Your task to perform on an android device: find snoozed emails in the gmail app Image 0: 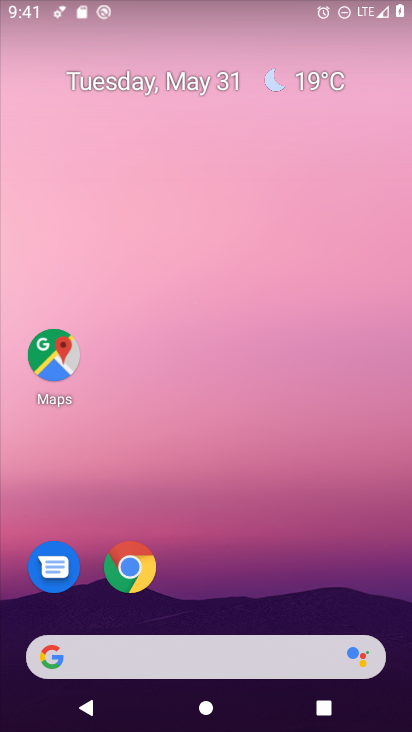
Step 0: drag from (196, 611) to (249, 76)
Your task to perform on an android device: find snoozed emails in the gmail app Image 1: 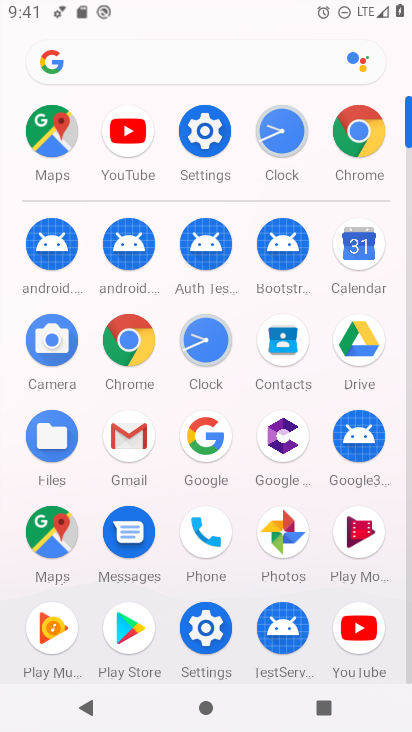
Step 1: click (137, 437)
Your task to perform on an android device: find snoozed emails in the gmail app Image 2: 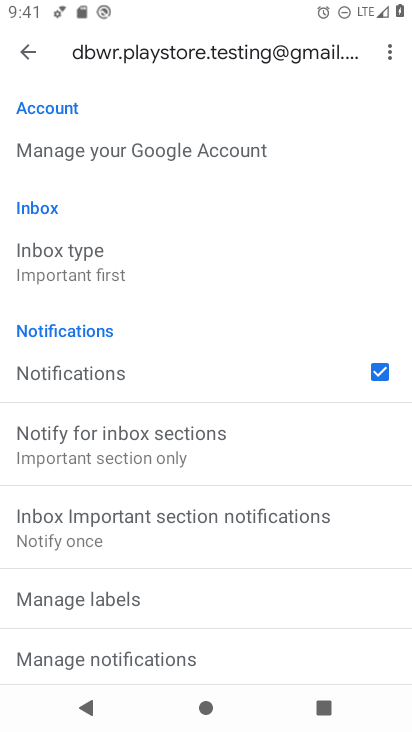
Step 2: click (27, 54)
Your task to perform on an android device: find snoozed emails in the gmail app Image 3: 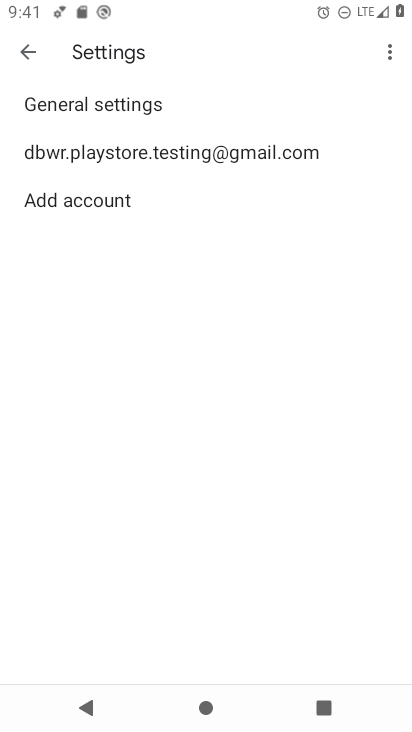
Step 3: click (23, 54)
Your task to perform on an android device: find snoozed emails in the gmail app Image 4: 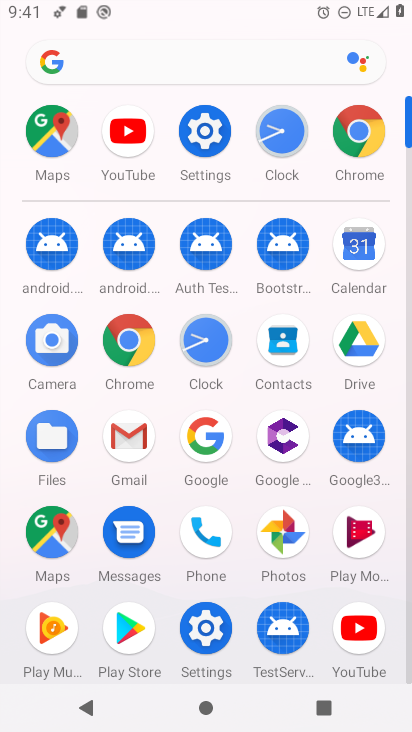
Step 4: click (134, 441)
Your task to perform on an android device: find snoozed emails in the gmail app Image 5: 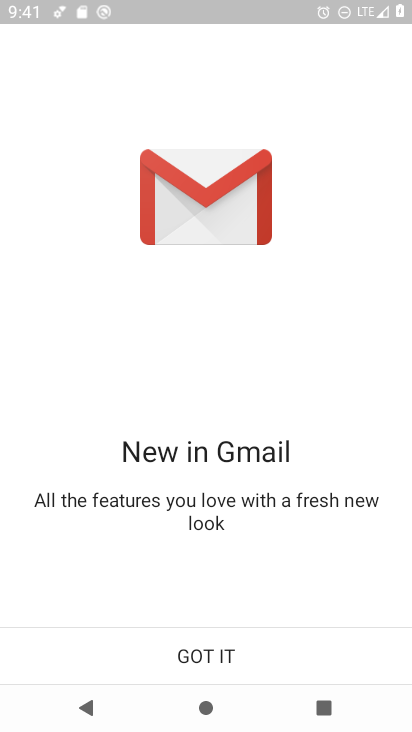
Step 5: click (236, 651)
Your task to perform on an android device: find snoozed emails in the gmail app Image 6: 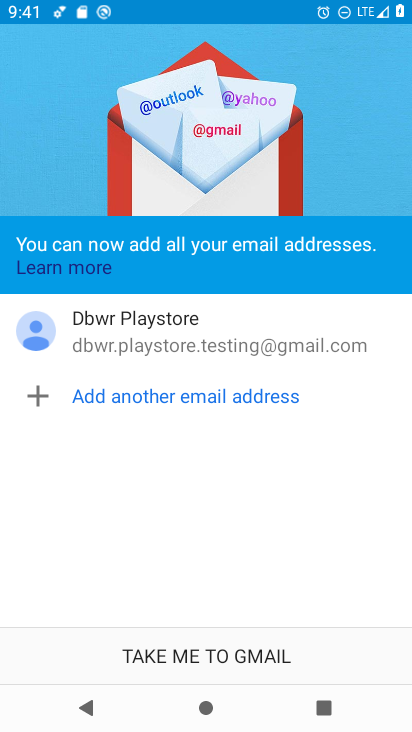
Step 6: click (236, 652)
Your task to perform on an android device: find snoozed emails in the gmail app Image 7: 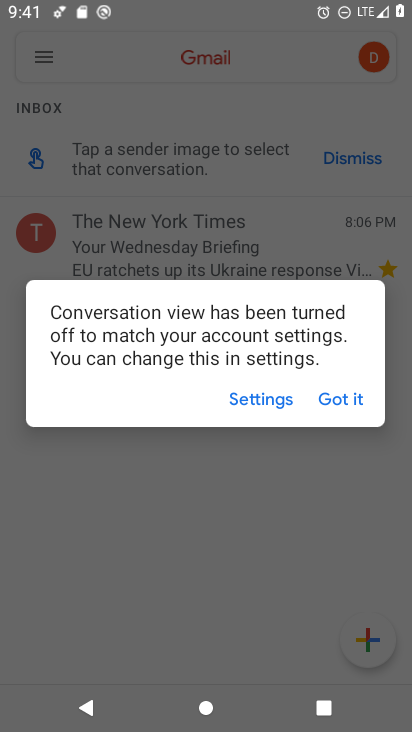
Step 7: click (340, 403)
Your task to perform on an android device: find snoozed emails in the gmail app Image 8: 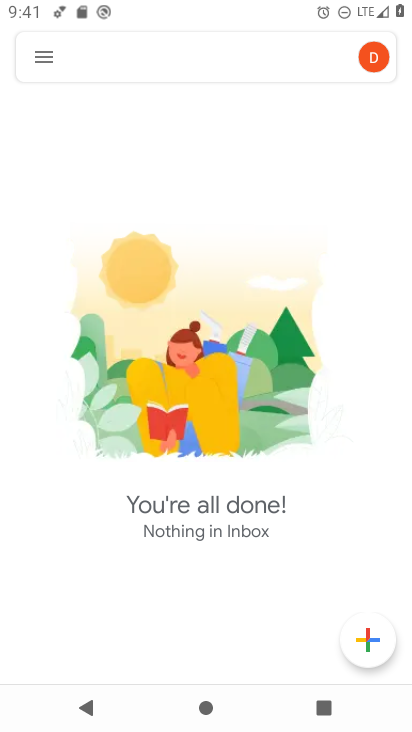
Step 8: click (44, 70)
Your task to perform on an android device: find snoozed emails in the gmail app Image 9: 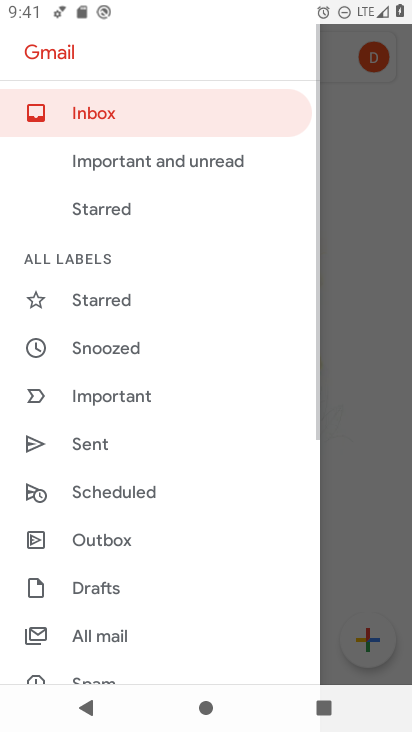
Step 9: click (100, 350)
Your task to perform on an android device: find snoozed emails in the gmail app Image 10: 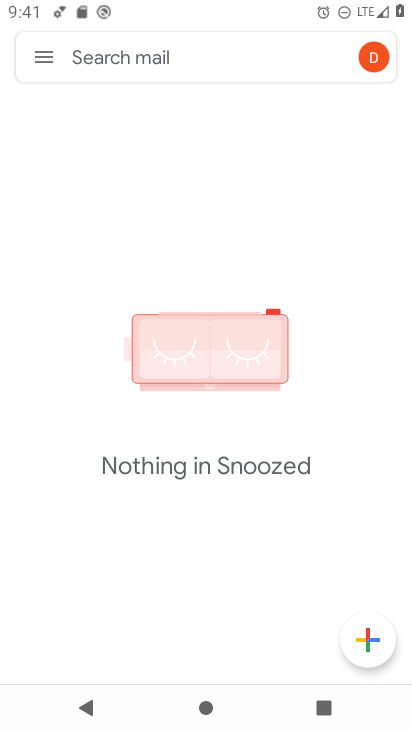
Step 10: task complete